Your task to perform on an android device: Play the last video I watched on Youtube Image 0: 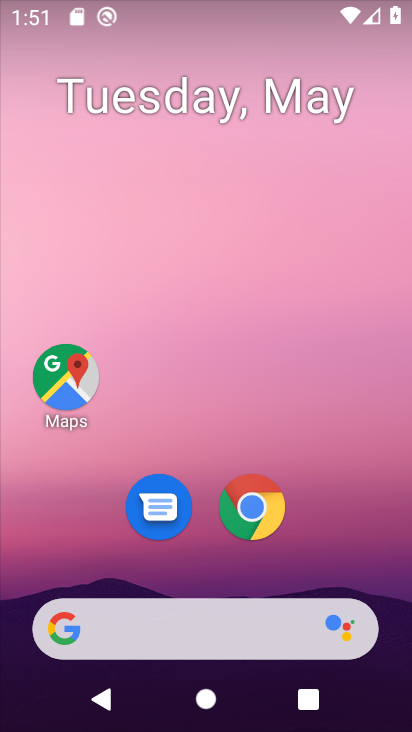
Step 0: drag from (206, 557) to (198, 177)
Your task to perform on an android device: Play the last video I watched on Youtube Image 1: 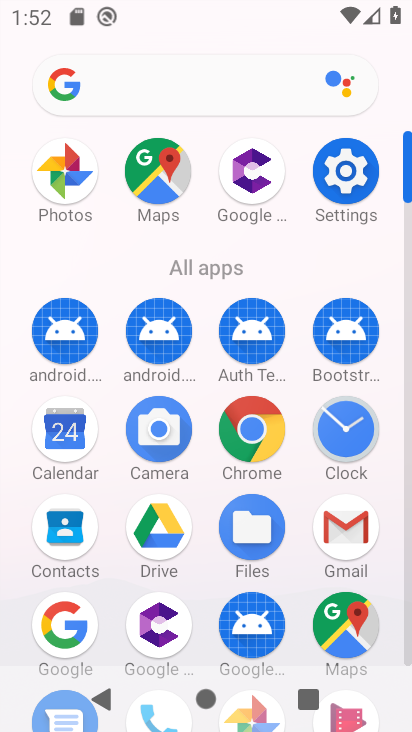
Step 1: drag from (255, 486) to (269, 145)
Your task to perform on an android device: Play the last video I watched on Youtube Image 2: 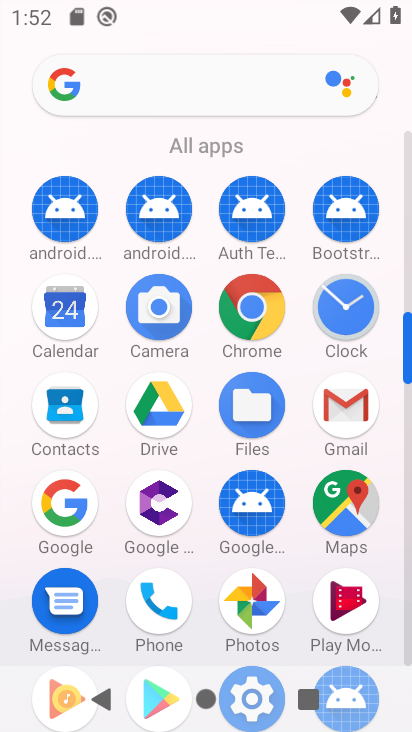
Step 2: drag from (226, 550) to (236, 218)
Your task to perform on an android device: Play the last video I watched on Youtube Image 3: 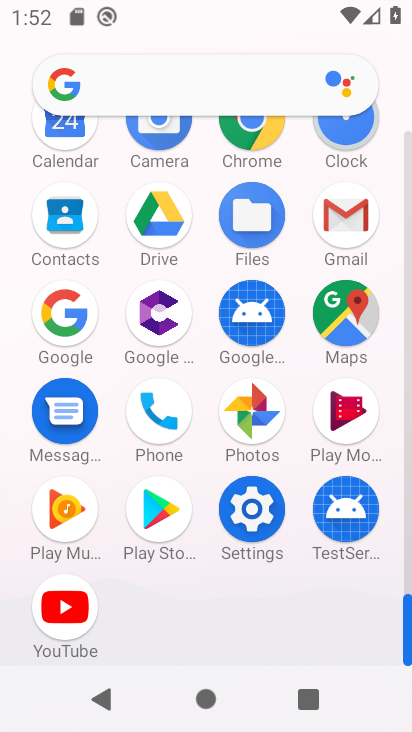
Step 3: click (65, 585)
Your task to perform on an android device: Play the last video I watched on Youtube Image 4: 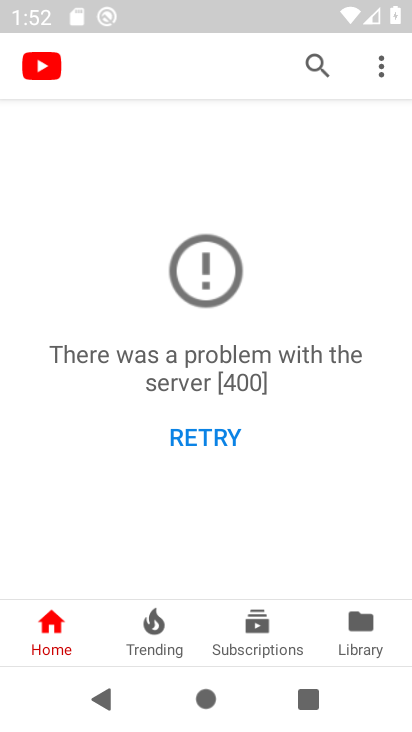
Step 4: click (345, 635)
Your task to perform on an android device: Play the last video I watched on Youtube Image 5: 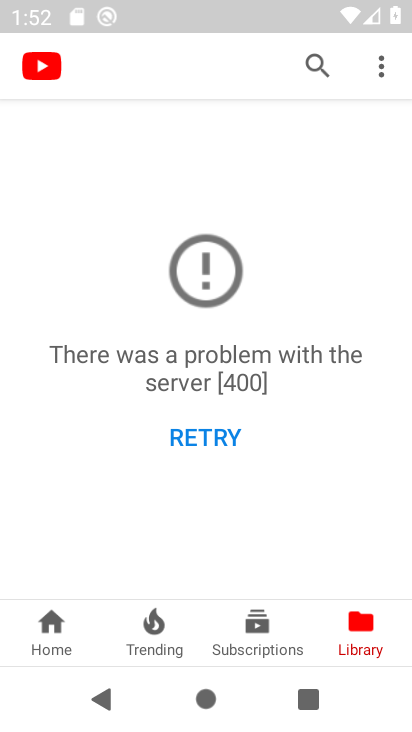
Step 5: click (365, 631)
Your task to perform on an android device: Play the last video I watched on Youtube Image 6: 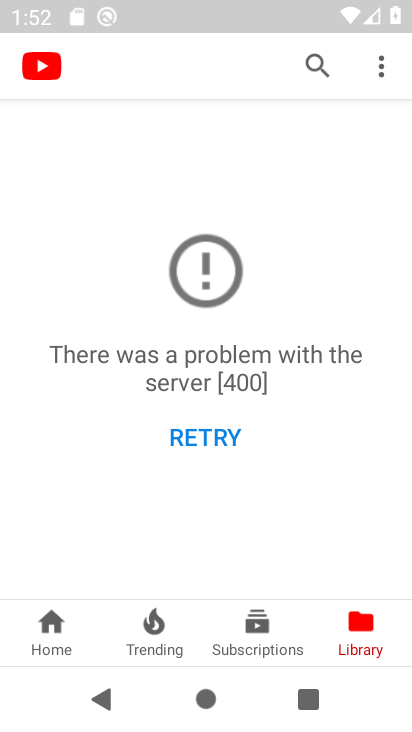
Step 6: click (229, 435)
Your task to perform on an android device: Play the last video I watched on Youtube Image 7: 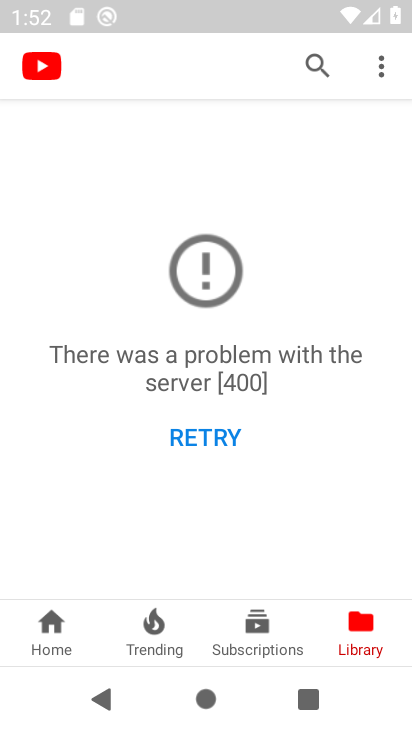
Step 7: task complete